Your task to perform on an android device: Open Google Maps and go to "Timeline" Image 0: 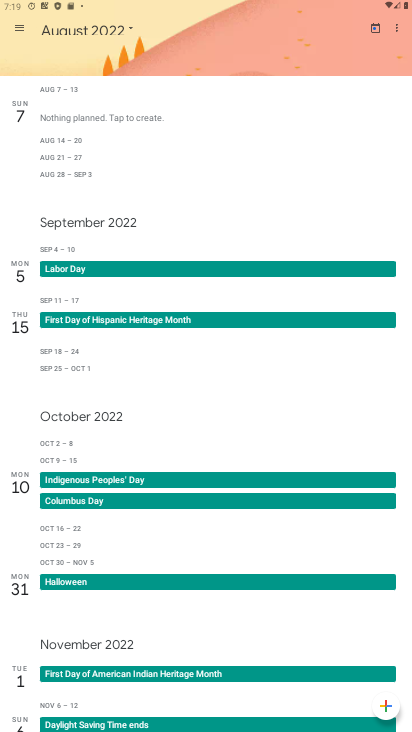
Step 0: press home button
Your task to perform on an android device: Open Google Maps and go to "Timeline" Image 1: 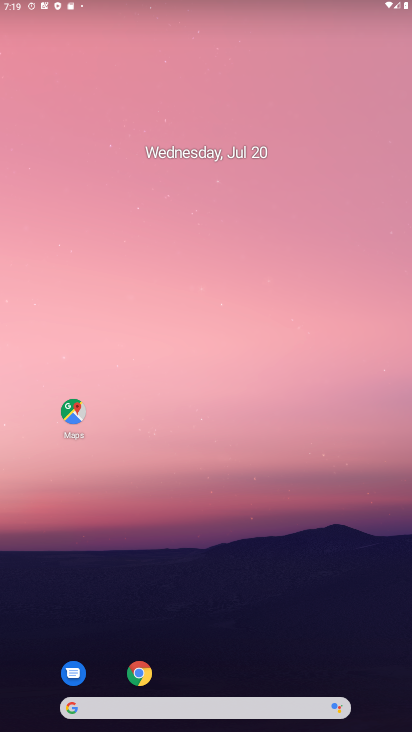
Step 1: drag from (374, 637) to (216, 53)
Your task to perform on an android device: Open Google Maps and go to "Timeline" Image 2: 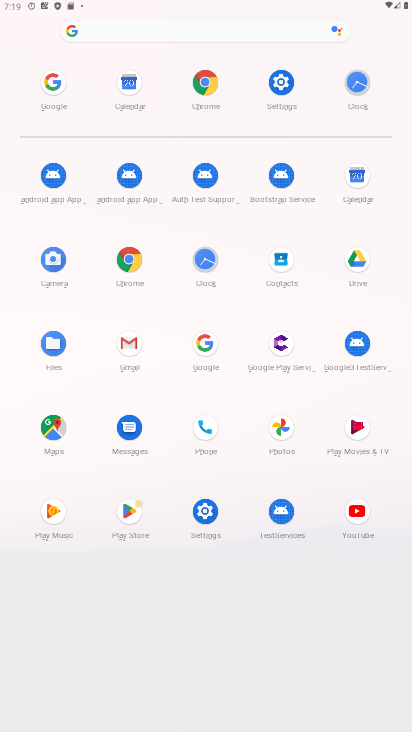
Step 2: click (57, 424)
Your task to perform on an android device: Open Google Maps and go to "Timeline" Image 3: 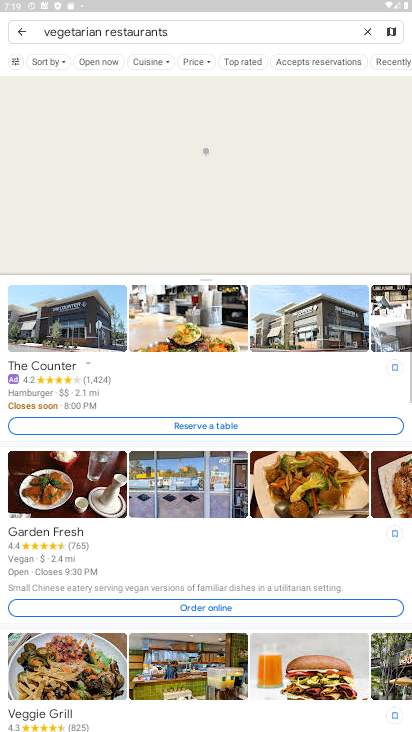
Step 3: click (371, 27)
Your task to perform on an android device: Open Google Maps and go to "Timeline" Image 4: 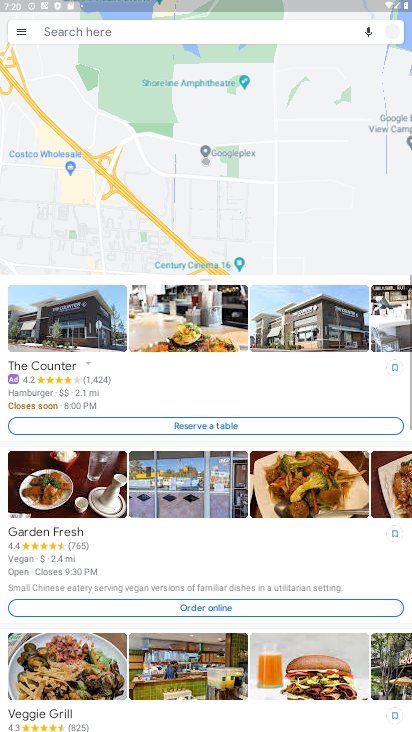
Step 4: click (17, 27)
Your task to perform on an android device: Open Google Maps and go to "Timeline" Image 5: 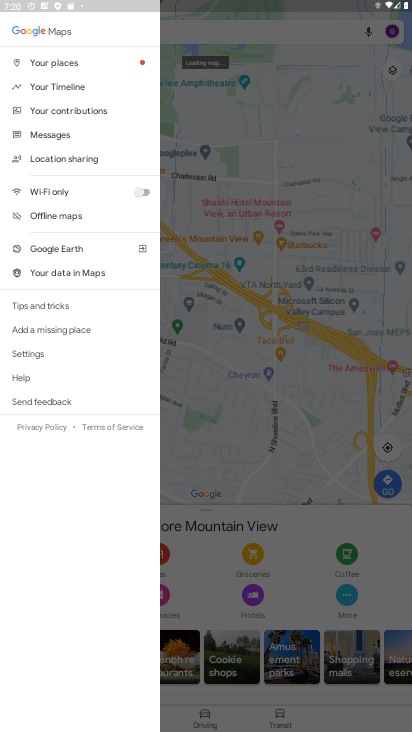
Step 5: click (63, 79)
Your task to perform on an android device: Open Google Maps and go to "Timeline" Image 6: 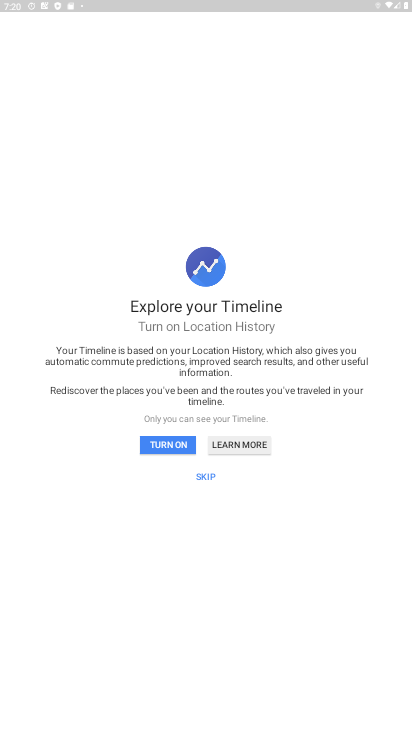
Step 6: task complete